Your task to perform on an android device: What's on my calendar tomorrow? Image 0: 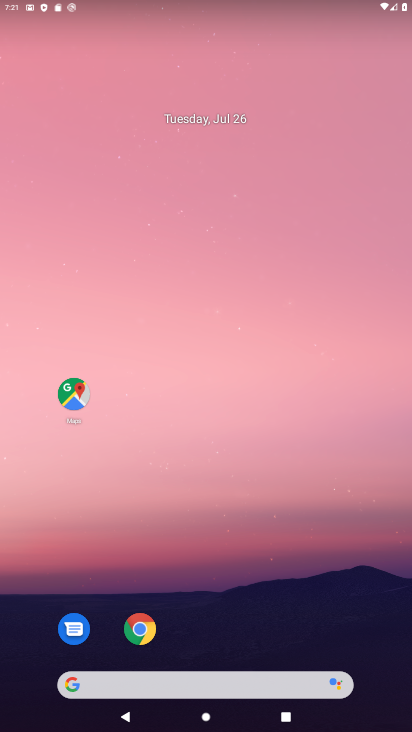
Step 0: drag from (203, 636) to (159, 3)
Your task to perform on an android device: What's on my calendar tomorrow? Image 1: 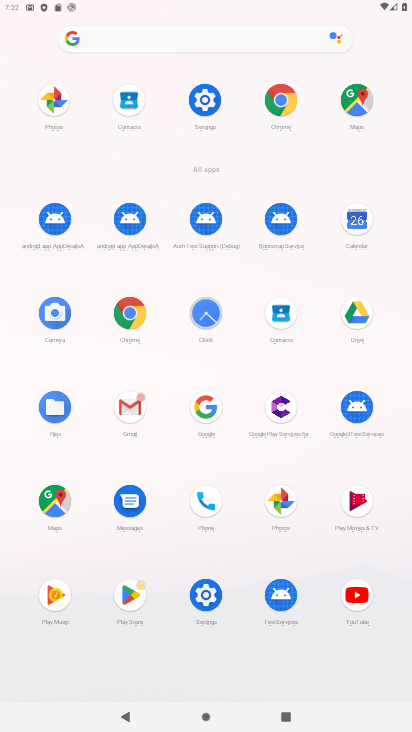
Step 1: click (356, 223)
Your task to perform on an android device: What's on my calendar tomorrow? Image 2: 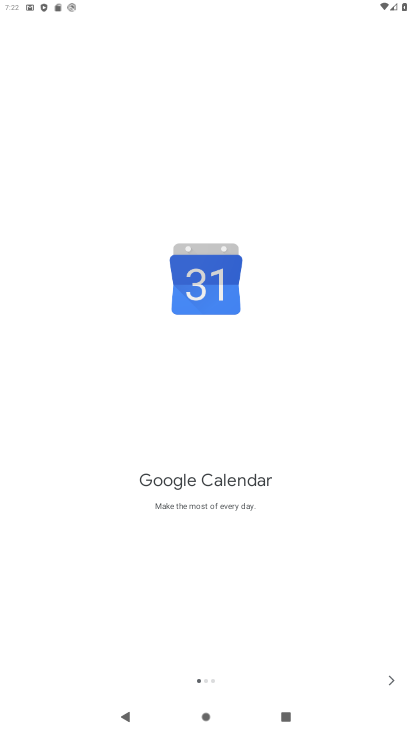
Step 2: click (389, 681)
Your task to perform on an android device: What's on my calendar tomorrow? Image 3: 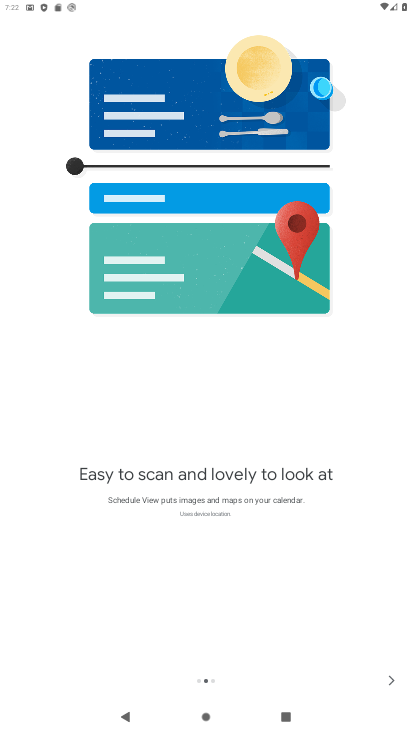
Step 3: click (381, 679)
Your task to perform on an android device: What's on my calendar tomorrow? Image 4: 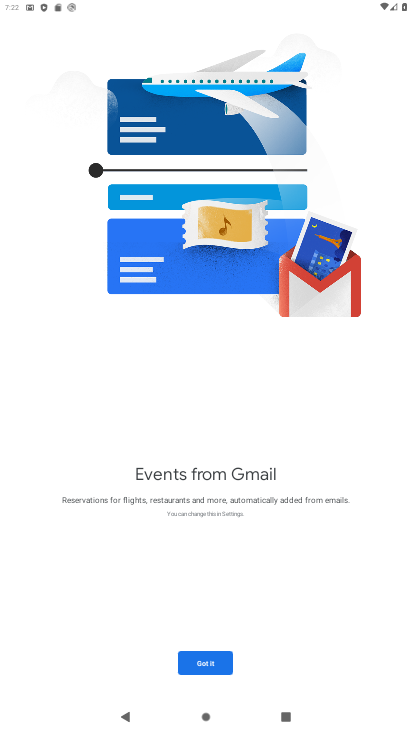
Step 4: click (202, 662)
Your task to perform on an android device: What's on my calendar tomorrow? Image 5: 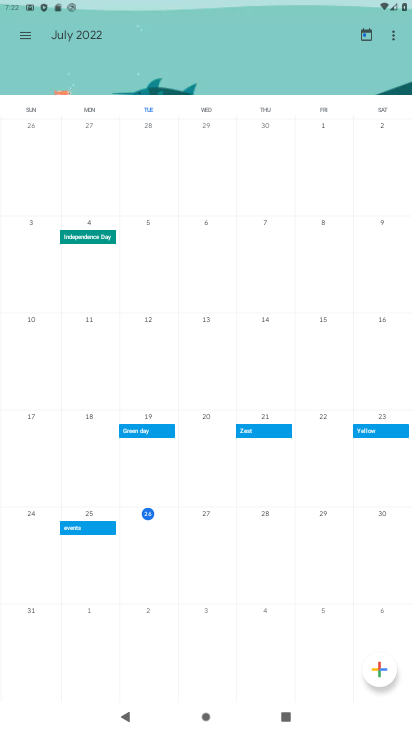
Step 5: click (21, 37)
Your task to perform on an android device: What's on my calendar tomorrow? Image 6: 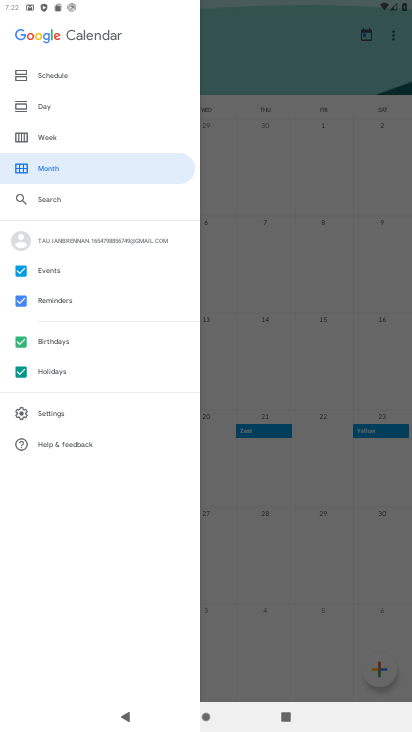
Step 6: click (47, 113)
Your task to perform on an android device: What's on my calendar tomorrow? Image 7: 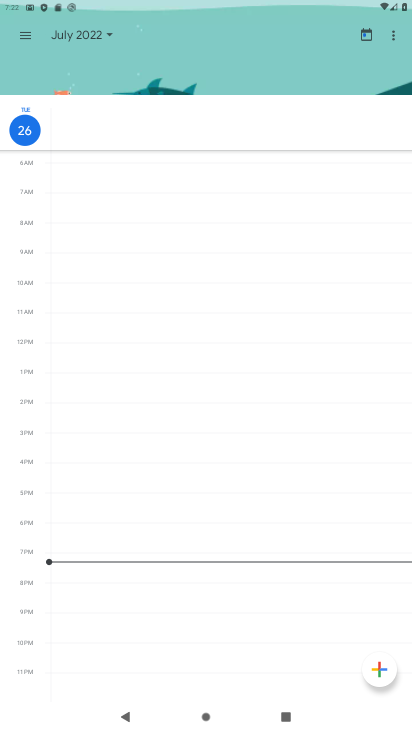
Step 7: click (84, 29)
Your task to perform on an android device: What's on my calendar tomorrow? Image 8: 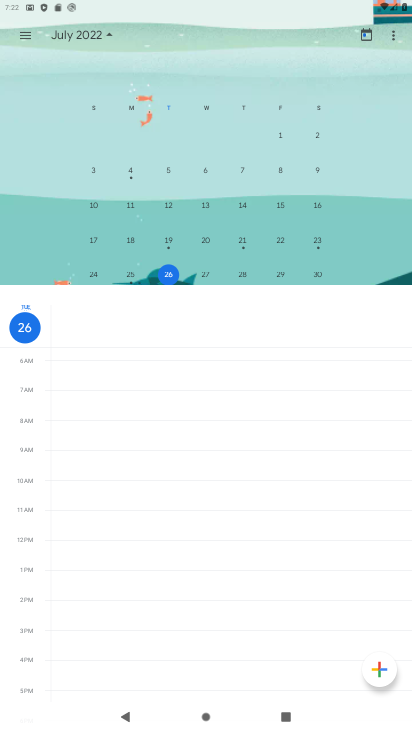
Step 8: click (209, 275)
Your task to perform on an android device: What's on my calendar tomorrow? Image 9: 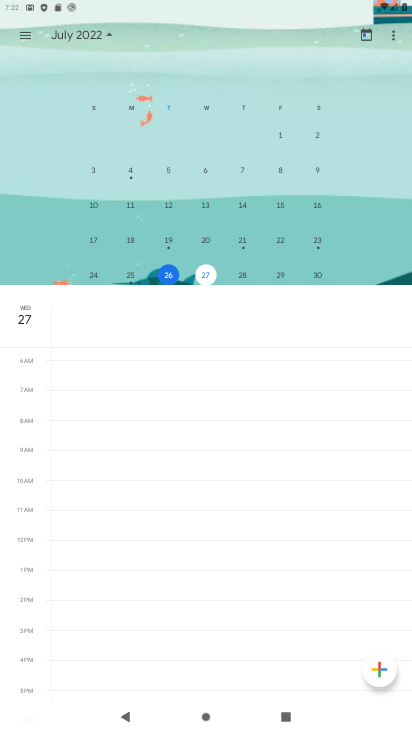
Step 9: click (204, 274)
Your task to perform on an android device: What's on my calendar tomorrow? Image 10: 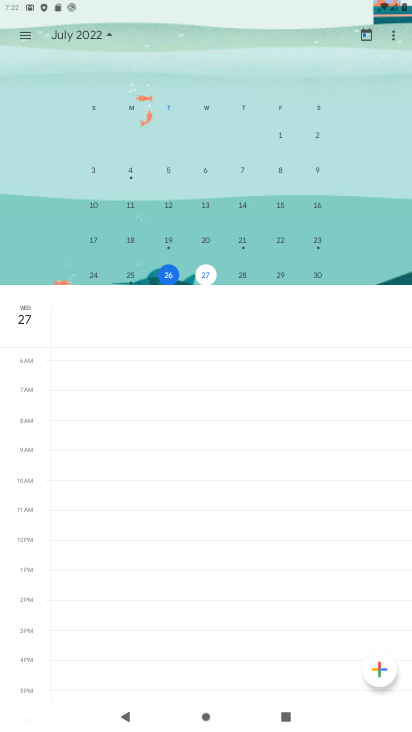
Step 10: task complete